Your task to perform on an android device: Do I have any events tomorrow? Image 0: 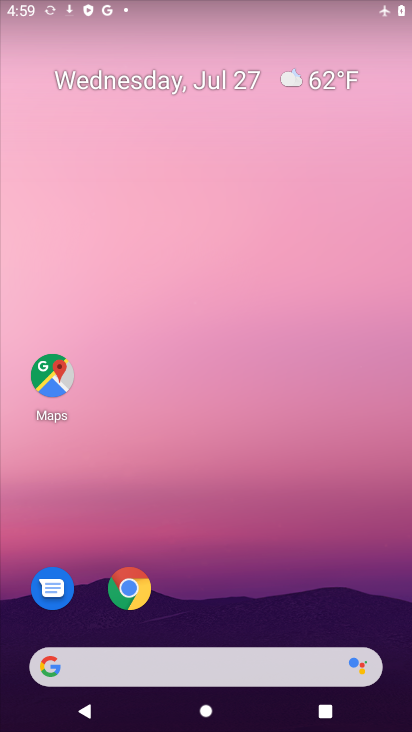
Step 0: drag from (198, 485) to (184, 23)
Your task to perform on an android device: Do I have any events tomorrow? Image 1: 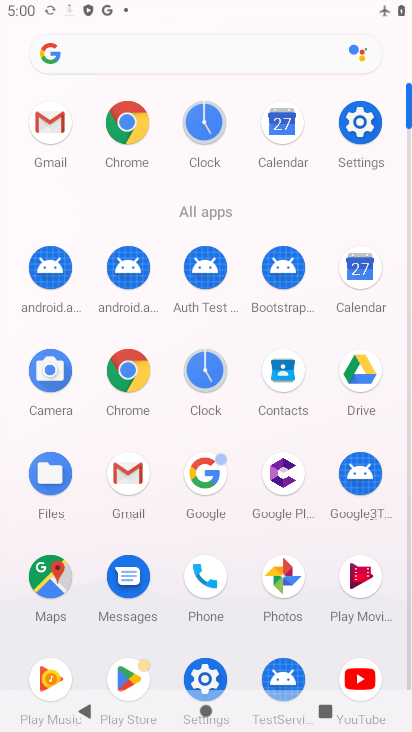
Step 1: click (294, 125)
Your task to perform on an android device: Do I have any events tomorrow? Image 2: 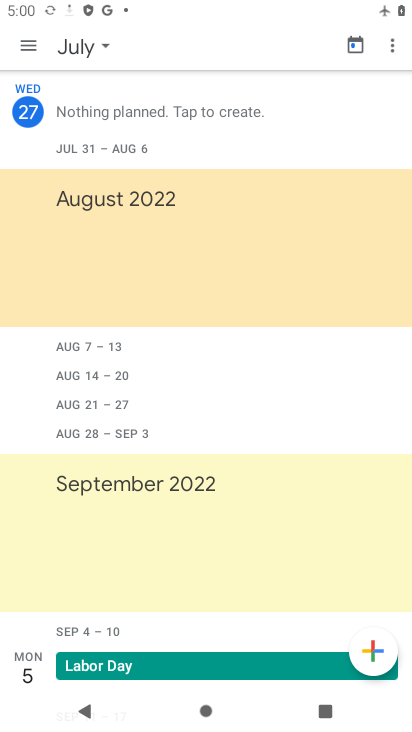
Step 2: click (88, 52)
Your task to perform on an android device: Do I have any events tomorrow? Image 3: 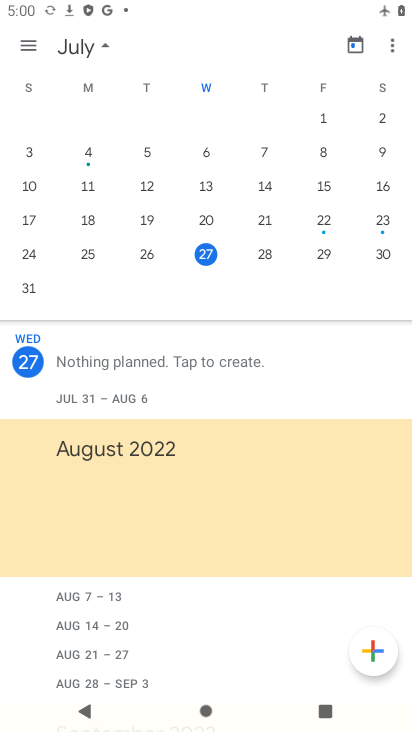
Step 3: click (265, 258)
Your task to perform on an android device: Do I have any events tomorrow? Image 4: 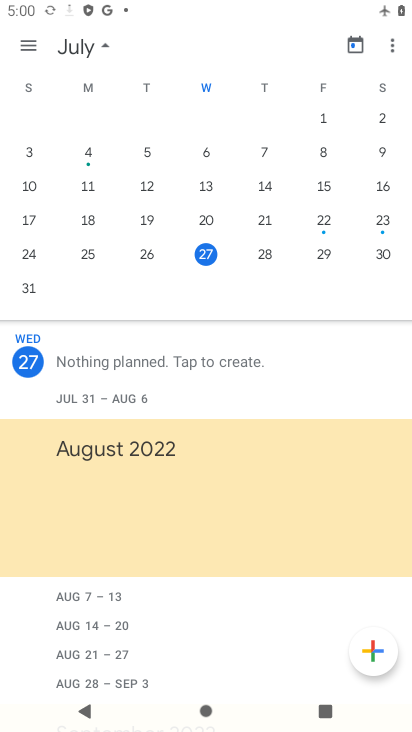
Step 4: click (265, 258)
Your task to perform on an android device: Do I have any events tomorrow? Image 5: 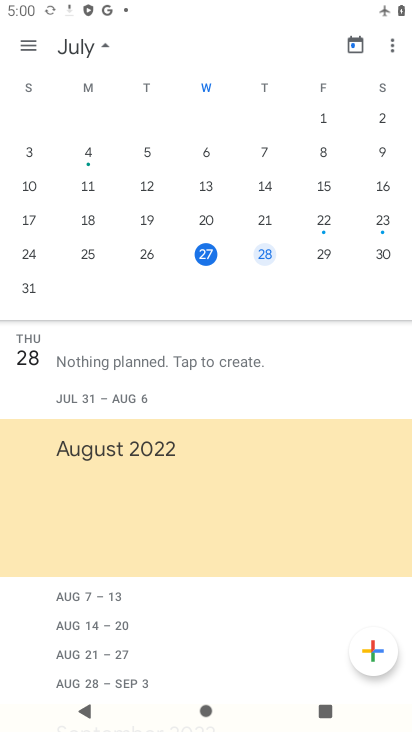
Step 5: task complete